Your task to perform on an android device: Search for sushi restaurants on Maps Image 0: 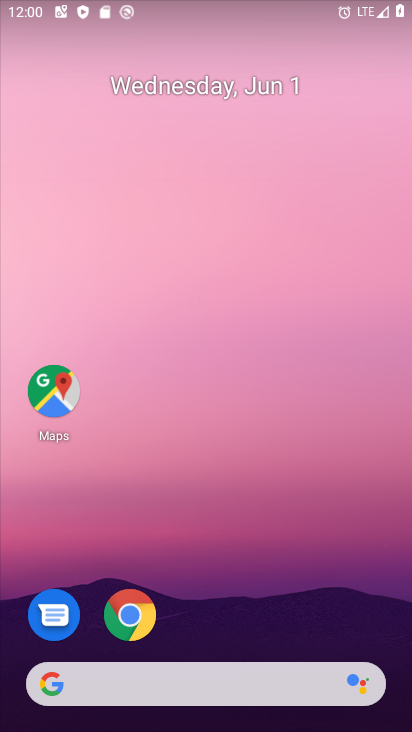
Step 0: drag from (346, 581) to (12, 173)
Your task to perform on an android device: Search for sushi restaurants on Maps Image 1: 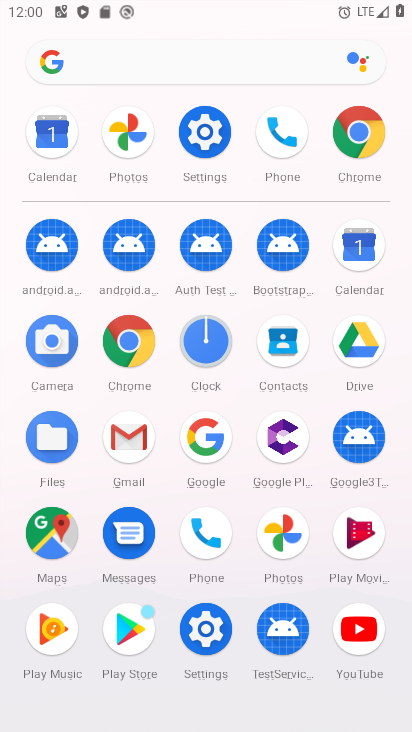
Step 1: click (70, 544)
Your task to perform on an android device: Search for sushi restaurants on Maps Image 2: 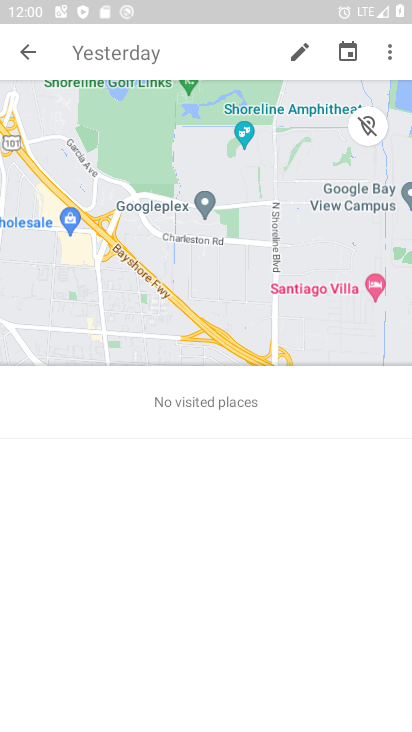
Step 2: click (39, 54)
Your task to perform on an android device: Search for sushi restaurants on Maps Image 3: 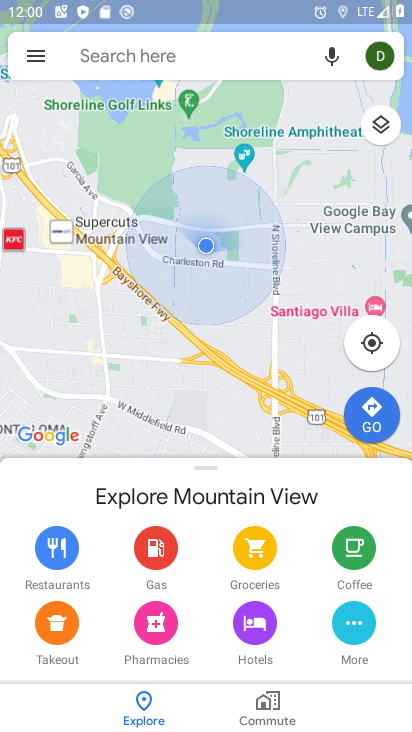
Step 3: click (159, 56)
Your task to perform on an android device: Search for sushi restaurants on Maps Image 4: 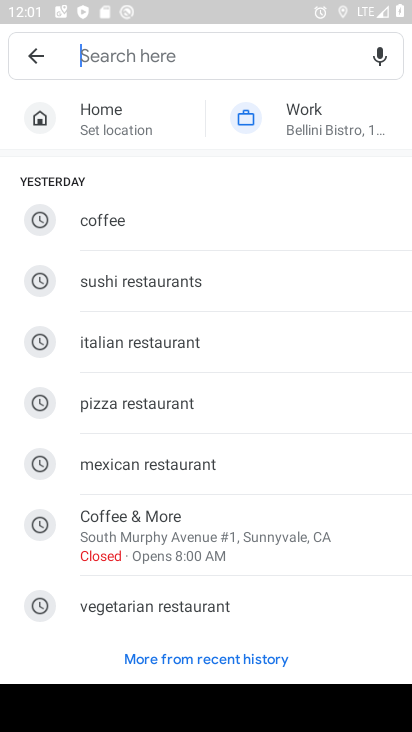
Step 4: click (136, 292)
Your task to perform on an android device: Search for sushi restaurants on Maps Image 5: 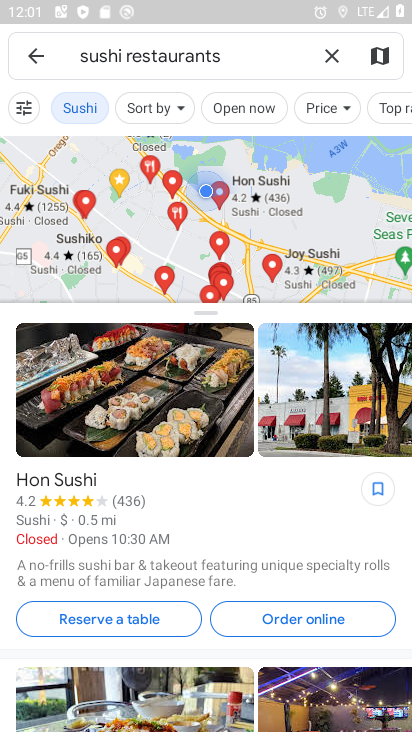
Step 5: task complete